Your task to perform on an android device: Search for Italian restaurants on Maps Image 0: 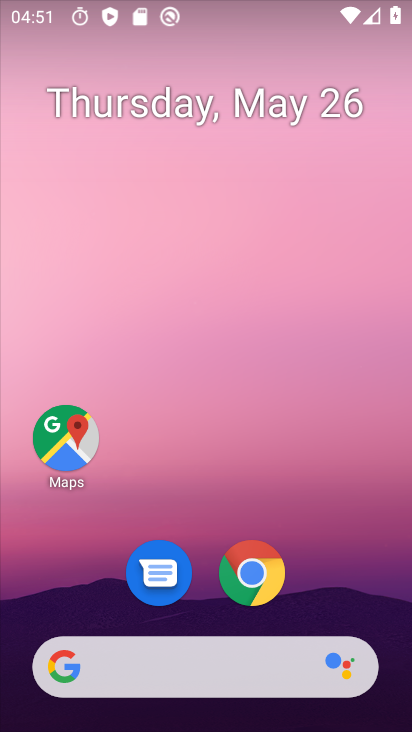
Step 0: click (68, 437)
Your task to perform on an android device: Search for Italian restaurants on Maps Image 1: 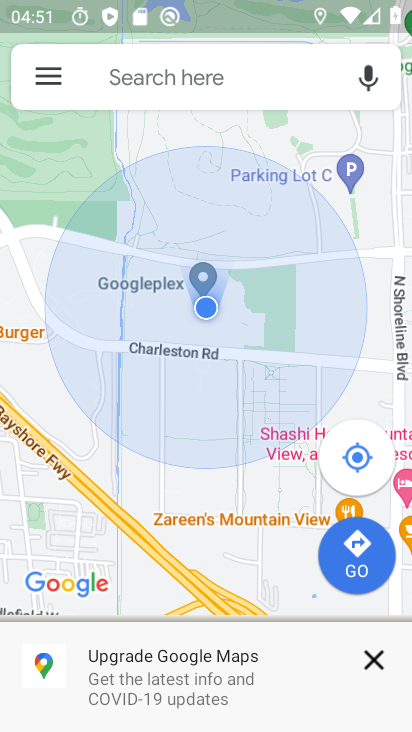
Step 1: click (130, 68)
Your task to perform on an android device: Search for Italian restaurants on Maps Image 2: 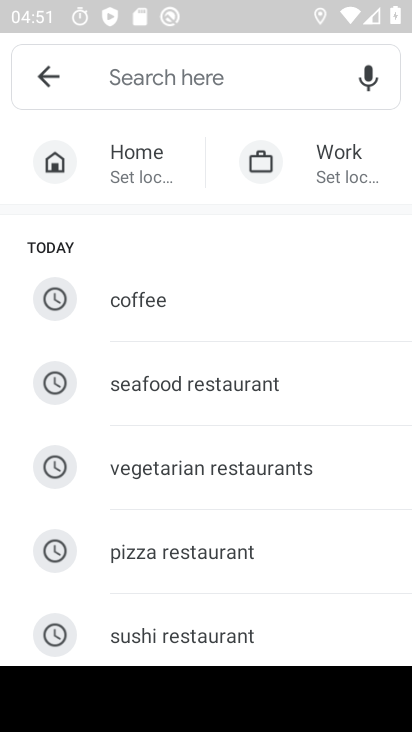
Step 2: drag from (225, 628) to (248, 400)
Your task to perform on an android device: Search for Italian restaurants on Maps Image 3: 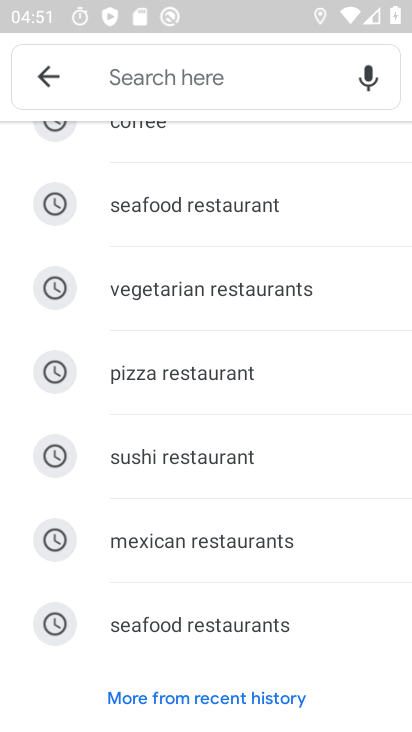
Step 3: drag from (219, 280) to (222, 661)
Your task to perform on an android device: Search for Italian restaurants on Maps Image 4: 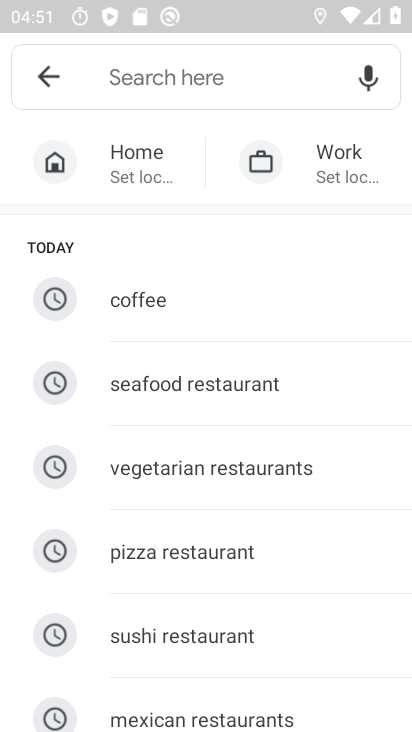
Step 4: click (156, 69)
Your task to perform on an android device: Search for Italian restaurants on Maps Image 5: 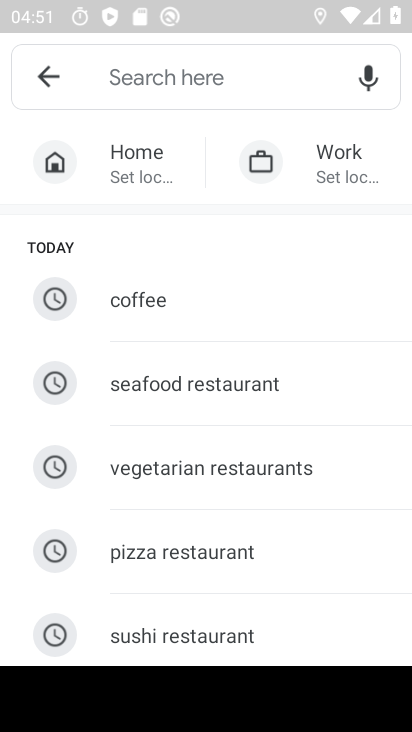
Step 5: type "italian restaurants"
Your task to perform on an android device: Search for Italian restaurants on Maps Image 6: 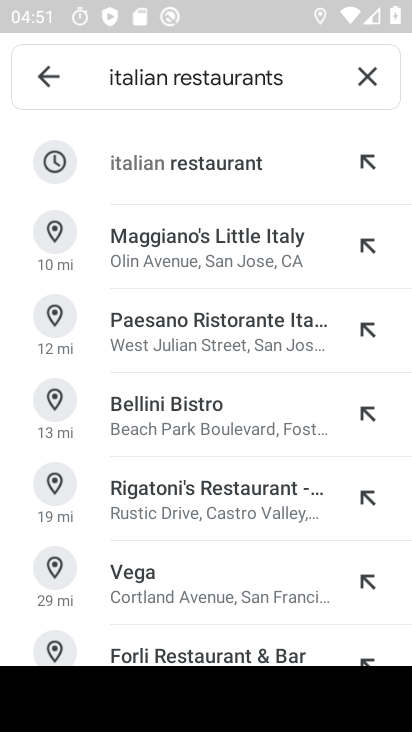
Step 6: click (217, 171)
Your task to perform on an android device: Search for Italian restaurants on Maps Image 7: 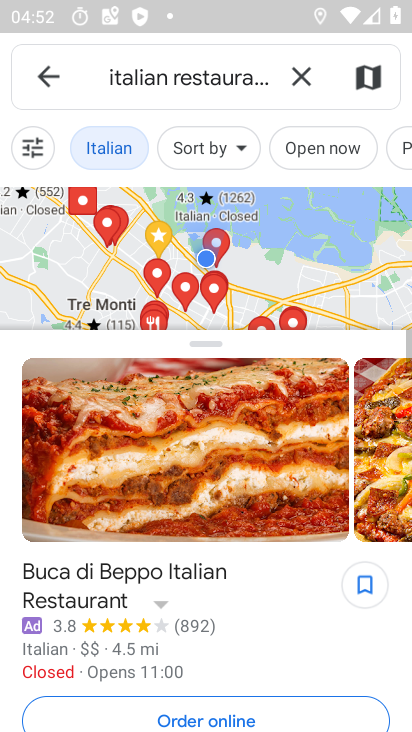
Step 7: task complete